Your task to perform on an android device: show emergency info Image 0: 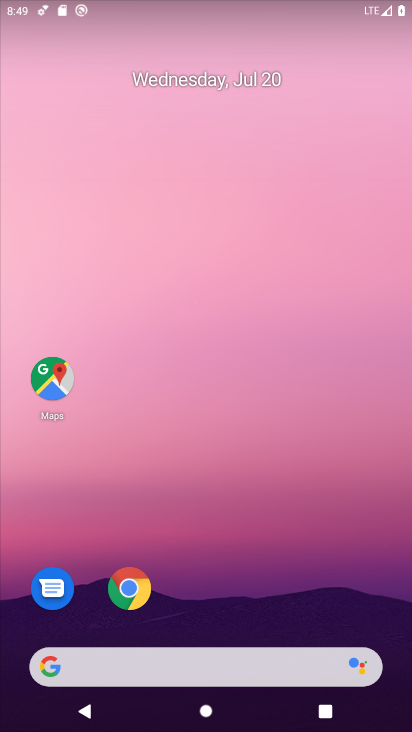
Step 0: press home button
Your task to perform on an android device: show emergency info Image 1: 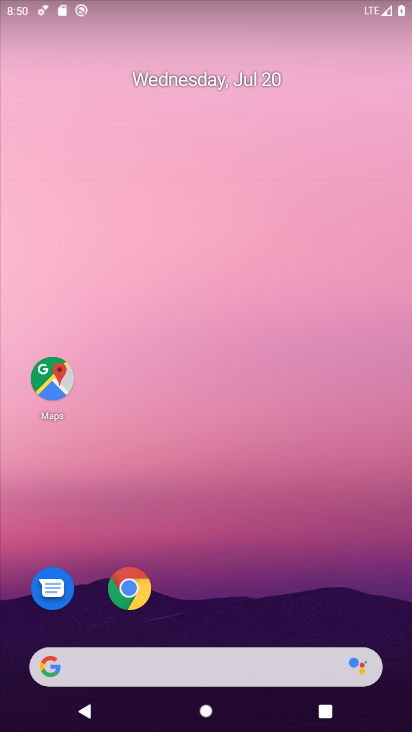
Step 1: press home button
Your task to perform on an android device: show emergency info Image 2: 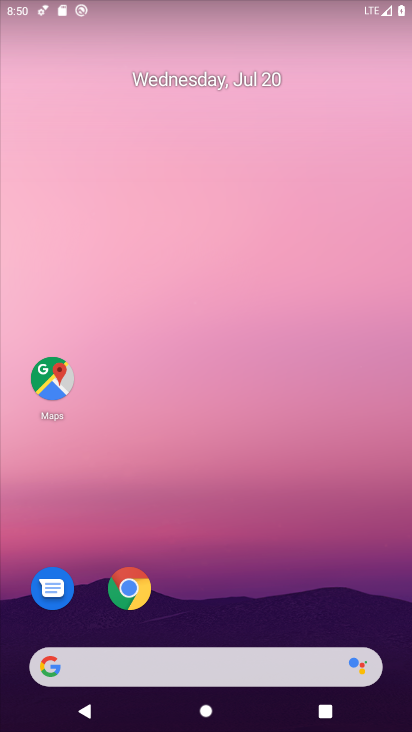
Step 2: drag from (228, 625) to (221, 135)
Your task to perform on an android device: show emergency info Image 3: 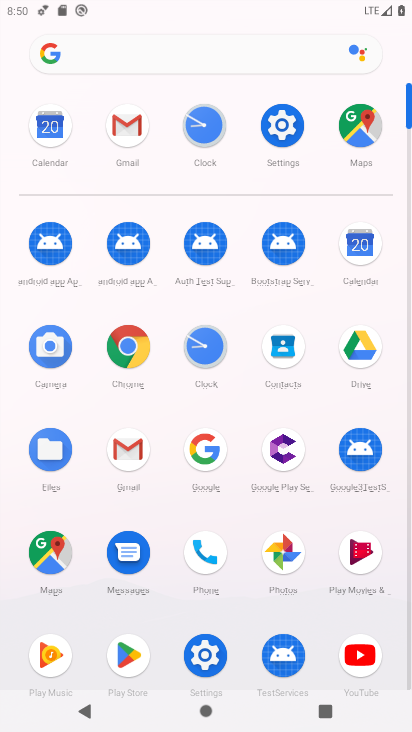
Step 3: click (281, 123)
Your task to perform on an android device: show emergency info Image 4: 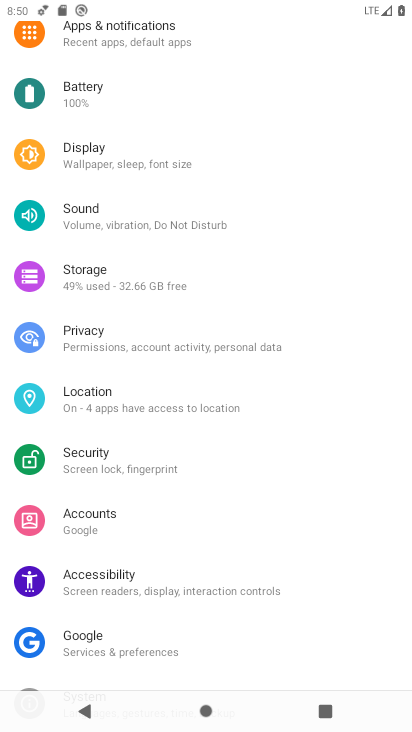
Step 4: drag from (149, 636) to (166, 149)
Your task to perform on an android device: show emergency info Image 5: 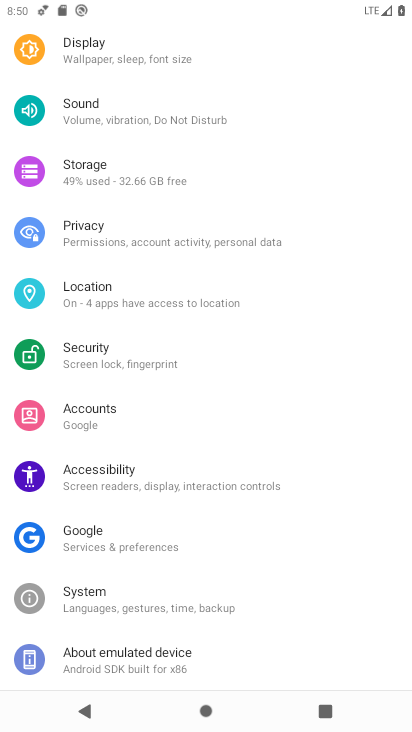
Step 5: click (200, 659)
Your task to perform on an android device: show emergency info Image 6: 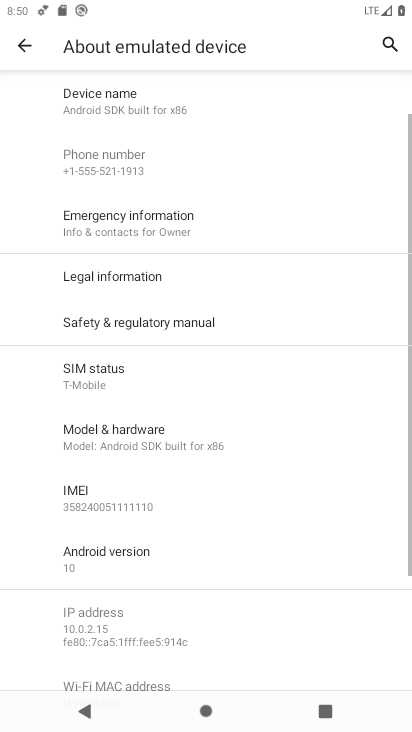
Step 6: click (202, 225)
Your task to perform on an android device: show emergency info Image 7: 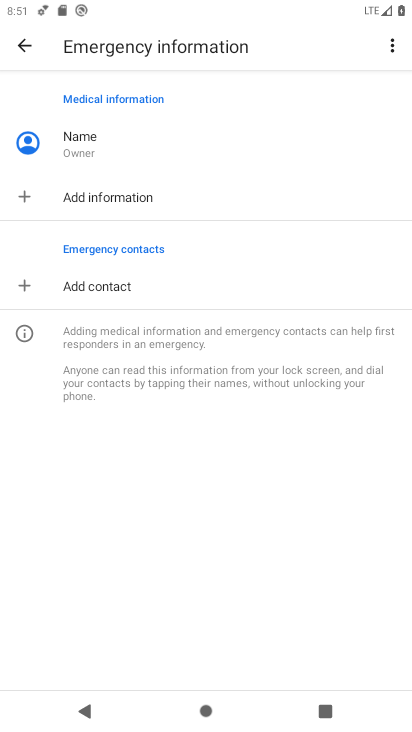
Step 7: task complete